Your task to perform on an android device: delete the emails in spam in the gmail app Image 0: 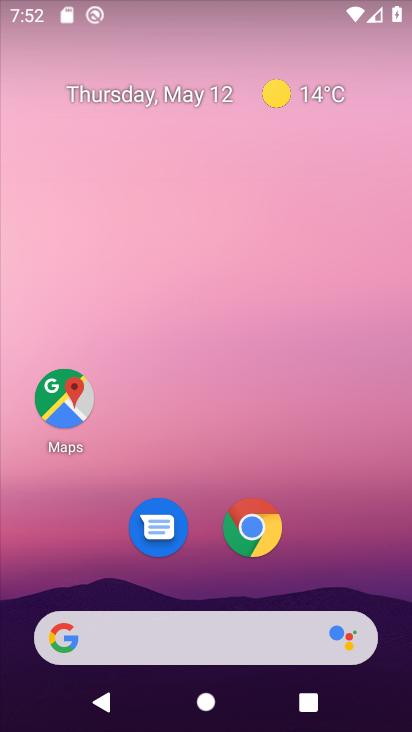
Step 0: drag from (291, 581) to (339, 135)
Your task to perform on an android device: delete the emails in spam in the gmail app Image 1: 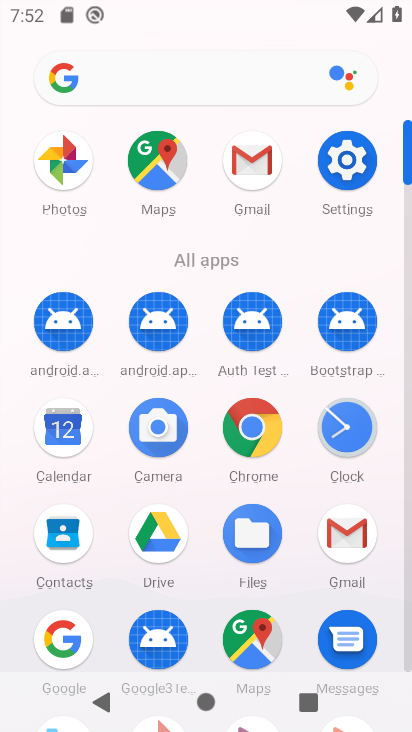
Step 1: click (248, 169)
Your task to perform on an android device: delete the emails in spam in the gmail app Image 2: 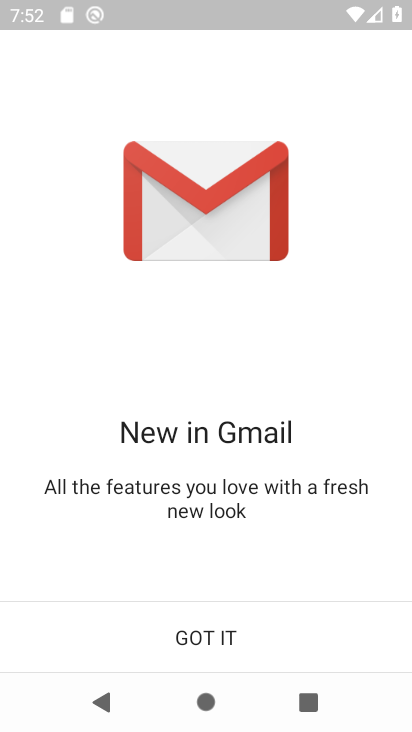
Step 2: click (227, 644)
Your task to perform on an android device: delete the emails in spam in the gmail app Image 3: 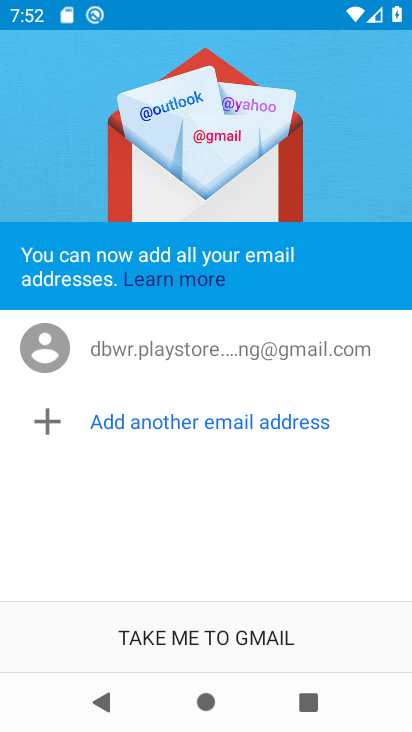
Step 3: click (228, 643)
Your task to perform on an android device: delete the emails in spam in the gmail app Image 4: 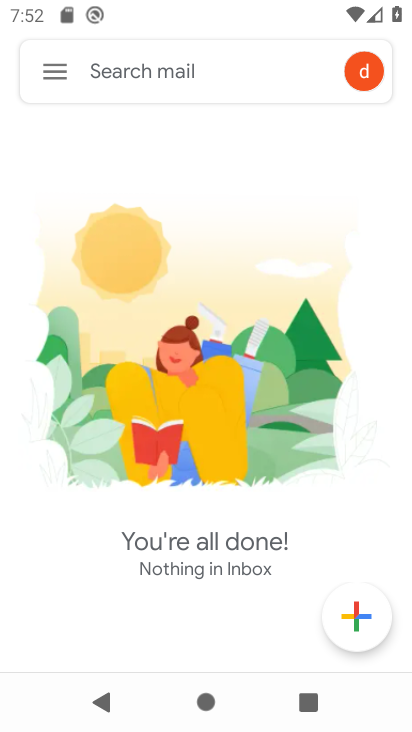
Step 4: click (62, 70)
Your task to perform on an android device: delete the emails in spam in the gmail app Image 5: 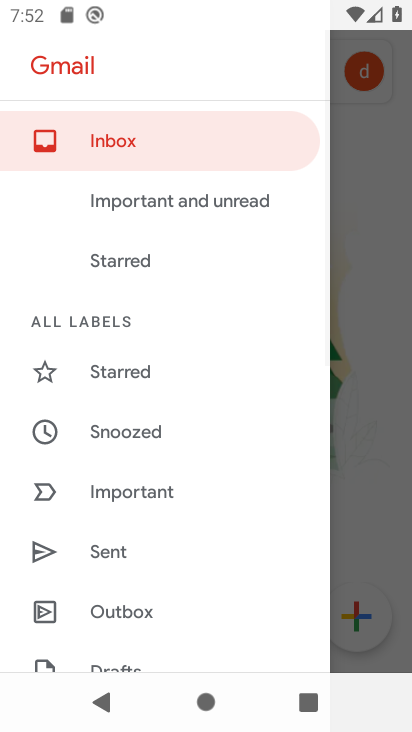
Step 5: drag from (153, 622) to (166, 223)
Your task to perform on an android device: delete the emails in spam in the gmail app Image 6: 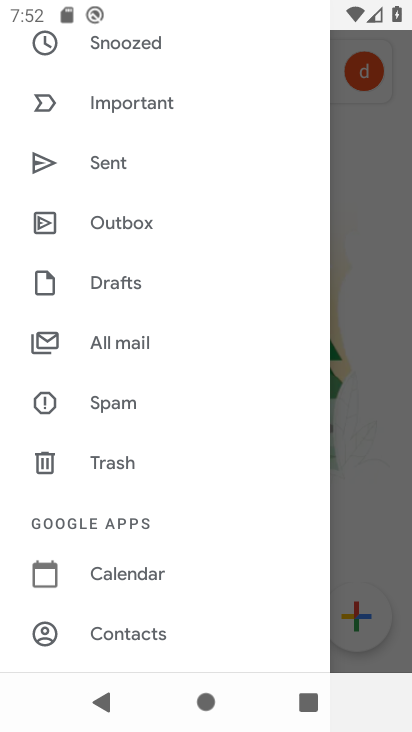
Step 6: click (134, 409)
Your task to perform on an android device: delete the emails in spam in the gmail app Image 7: 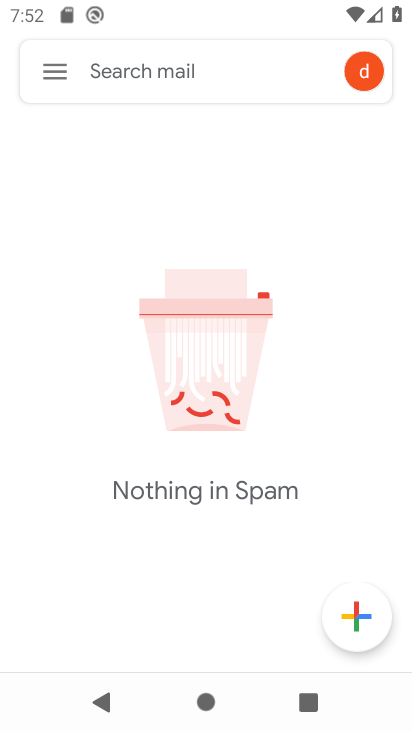
Step 7: task complete